Your task to perform on an android device: Add "panasonic triple a" to the cart on amazon.com Image 0: 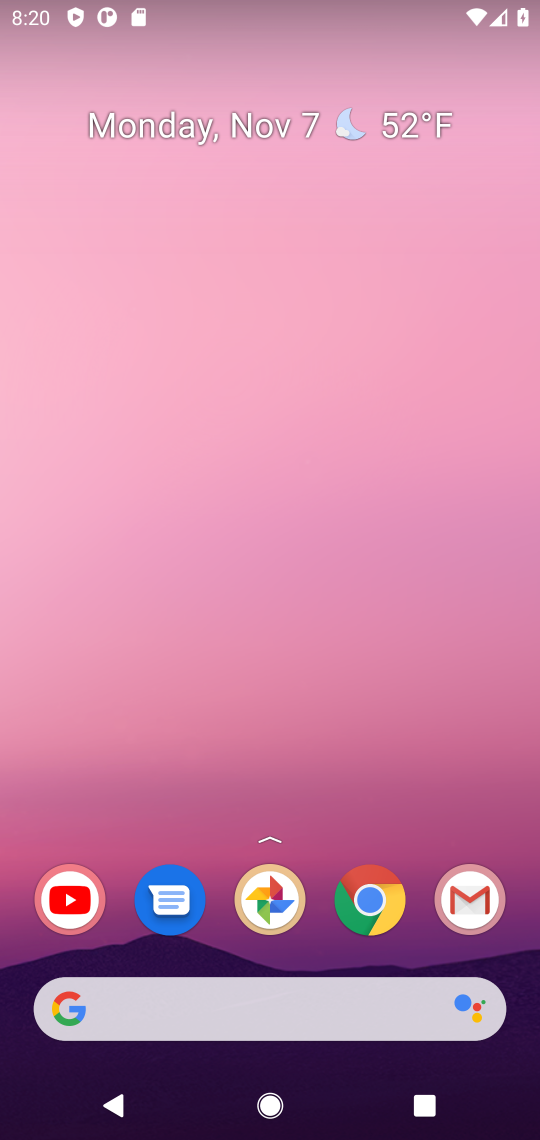
Step 0: click (246, 1012)
Your task to perform on an android device: Add "panasonic triple a" to the cart on amazon.com Image 1: 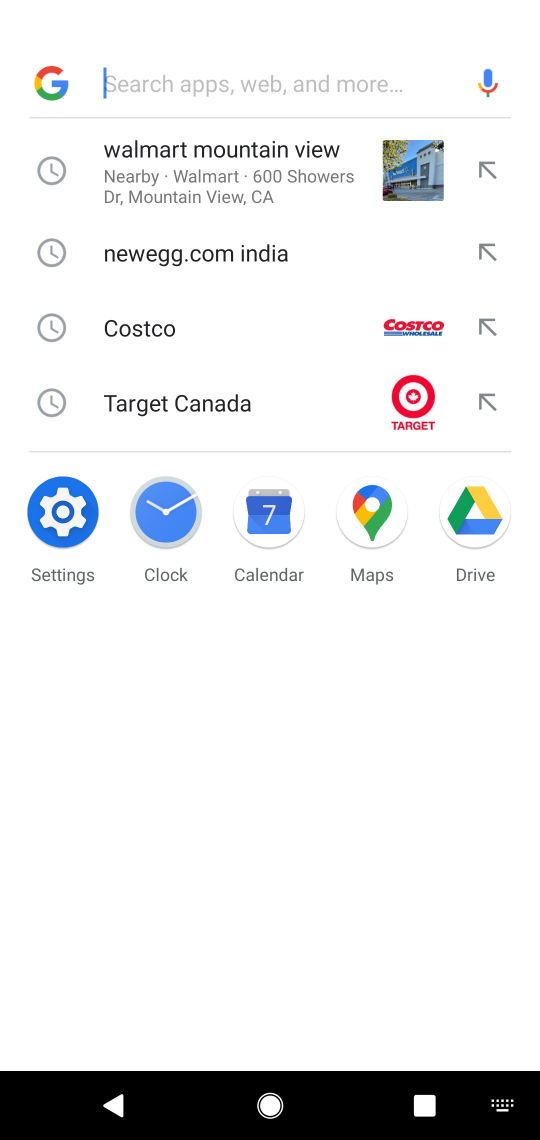
Step 1: click (219, 265)
Your task to perform on an android device: Add "panasonic triple a" to the cart on amazon.com Image 2: 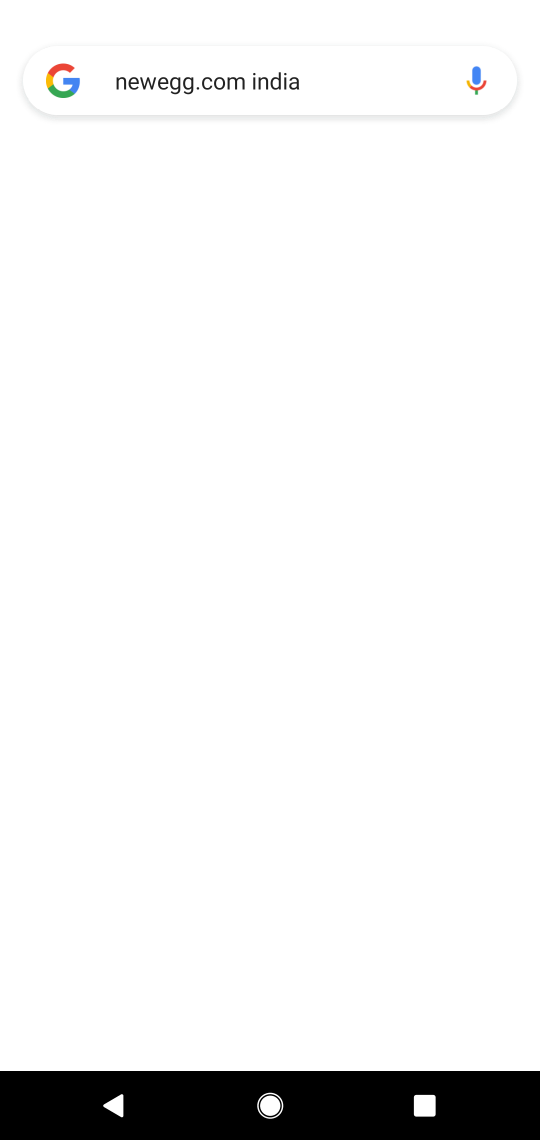
Step 2: task complete